Your task to perform on an android device: What's the weather? Image 0: 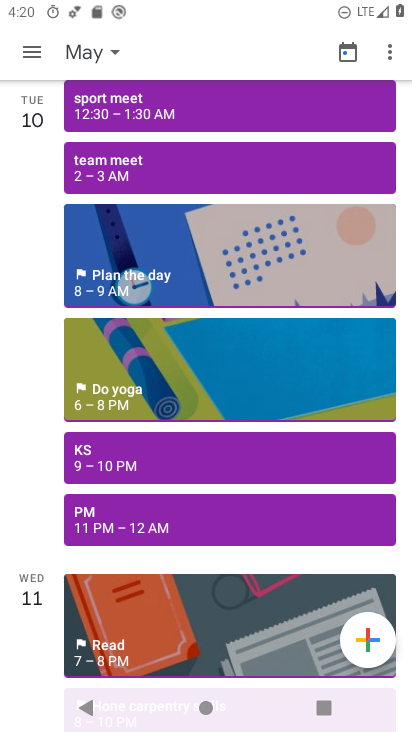
Step 0: press home button
Your task to perform on an android device: What's the weather? Image 1: 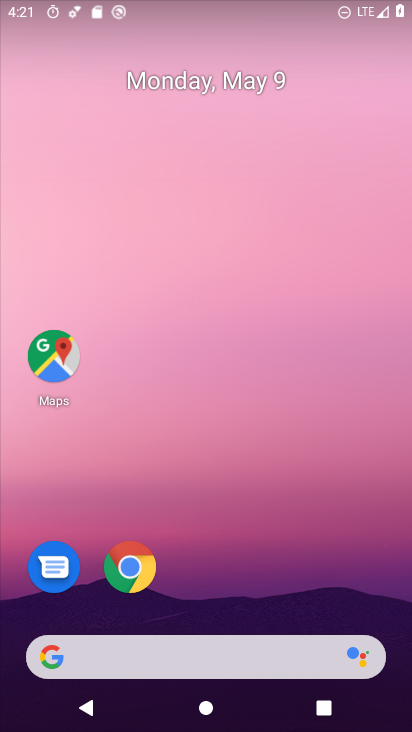
Step 1: drag from (268, 574) to (237, 186)
Your task to perform on an android device: What's the weather? Image 2: 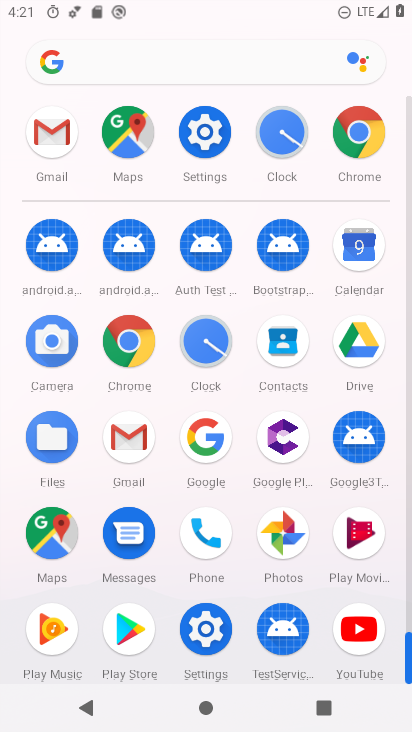
Step 2: click (197, 436)
Your task to perform on an android device: What's the weather? Image 3: 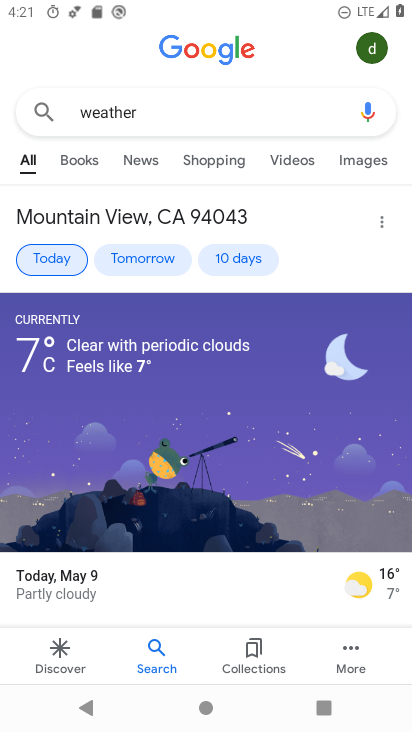
Step 3: task complete